Your task to perform on an android device: Check the news Image 0: 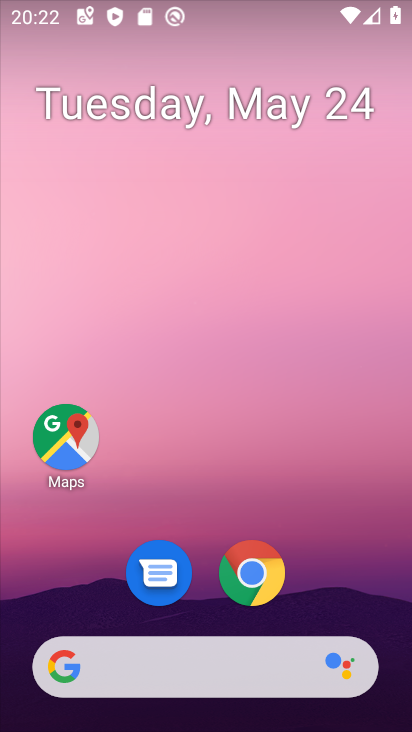
Step 0: click (152, 654)
Your task to perform on an android device: Check the news Image 1: 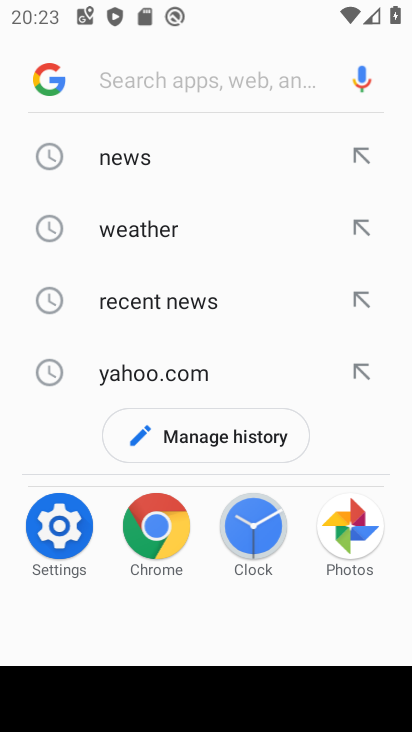
Step 1: type "news"
Your task to perform on an android device: Check the news Image 2: 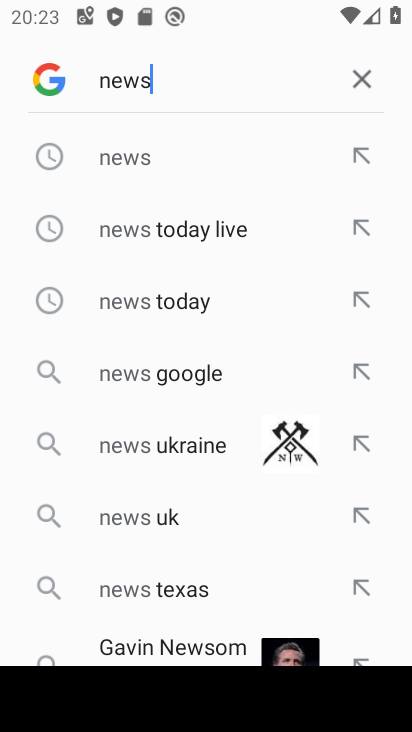
Step 2: click (121, 168)
Your task to perform on an android device: Check the news Image 3: 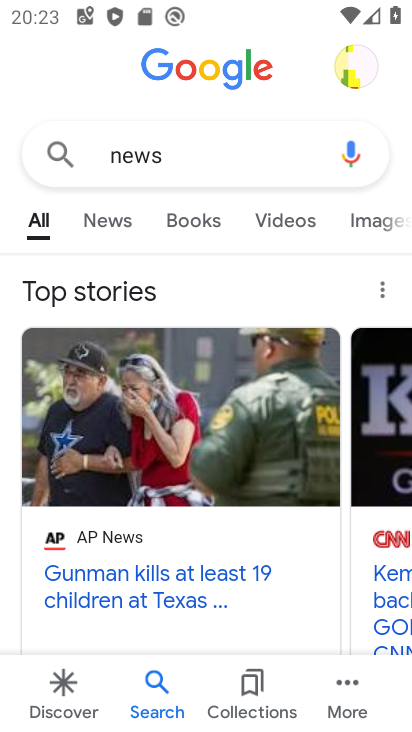
Step 3: click (123, 210)
Your task to perform on an android device: Check the news Image 4: 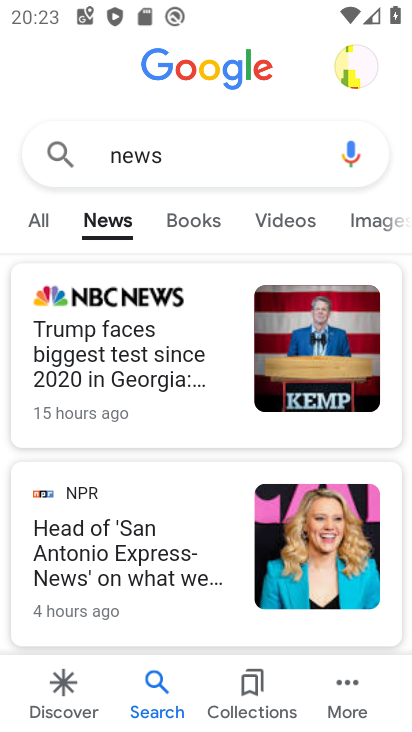
Step 4: task complete